Your task to perform on an android device: add a contact in the contacts app Image 0: 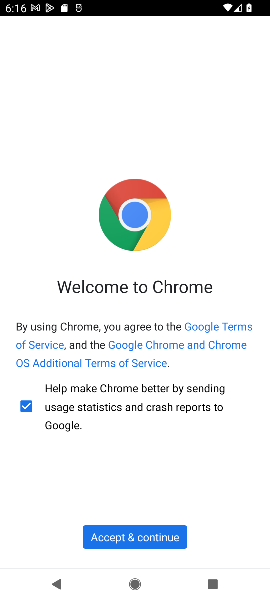
Step 0: press home button
Your task to perform on an android device: add a contact in the contacts app Image 1: 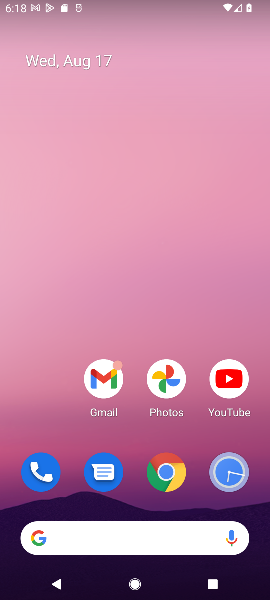
Step 1: drag from (157, 243) to (166, 0)
Your task to perform on an android device: add a contact in the contacts app Image 2: 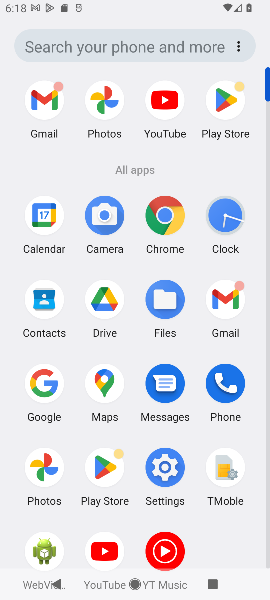
Step 2: click (47, 296)
Your task to perform on an android device: add a contact in the contacts app Image 3: 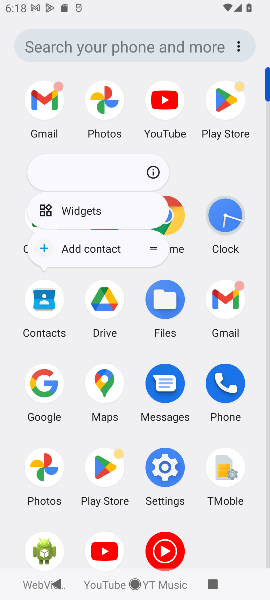
Step 3: click (46, 298)
Your task to perform on an android device: add a contact in the contacts app Image 4: 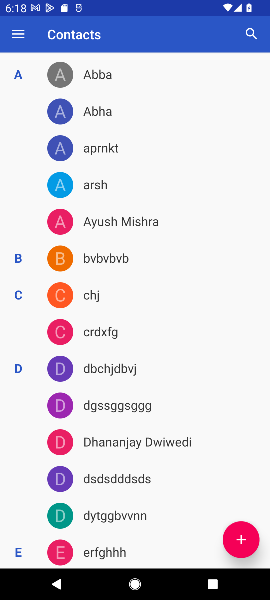
Step 4: click (239, 533)
Your task to perform on an android device: add a contact in the contacts app Image 5: 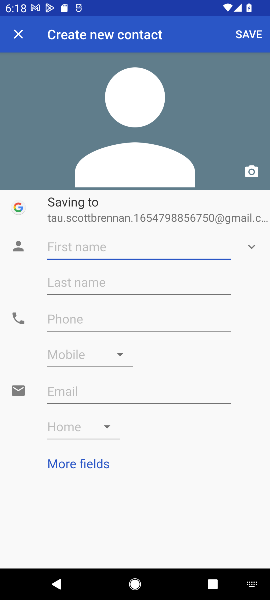
Step 5: type "Abhay"
Your task to perform on an android device: add a contact in the contacts app Image 6: 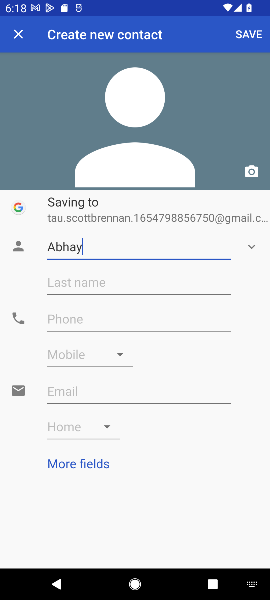
Step 6: click (151, 325)
Your task to perform on an android device: add a contact in the contacts app Image 7: 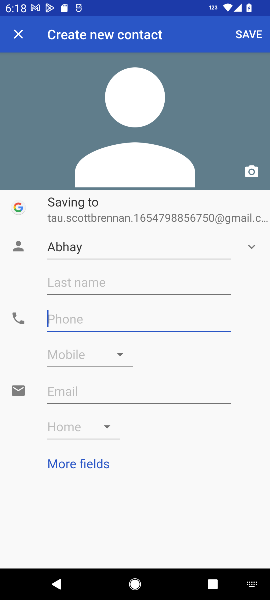
Step 7: type "+919999765432"
Your task to perform on an android device: add a contact in the contacts app Image 8: 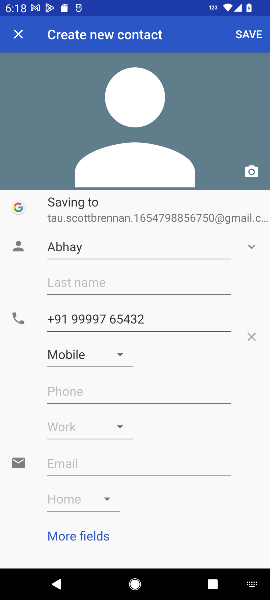
Step 8: click (258, 36)
Your task to perform on an android device: add a contact in the contacts app Image 9: 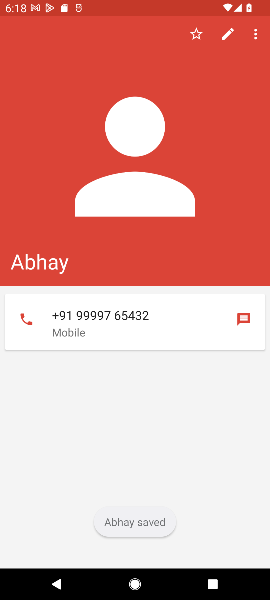
Step 9: task complete